Your task to perform on an android device: Search for seafood restaurants on Google Maps Image 0: 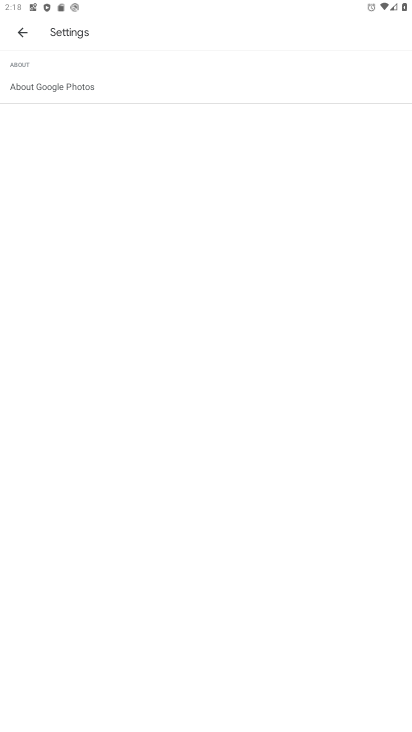
Step 0: press home button
Your task to perform on an android device: Search for seafood restaurants on Google Maps Image 1: 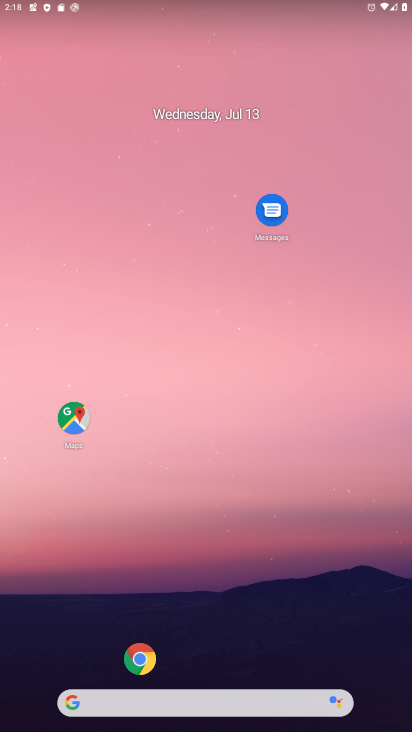
Step 1: click (79, 430)
Your task to perform on an android device: Search for seafood restaurants on Google Maps Image 2: 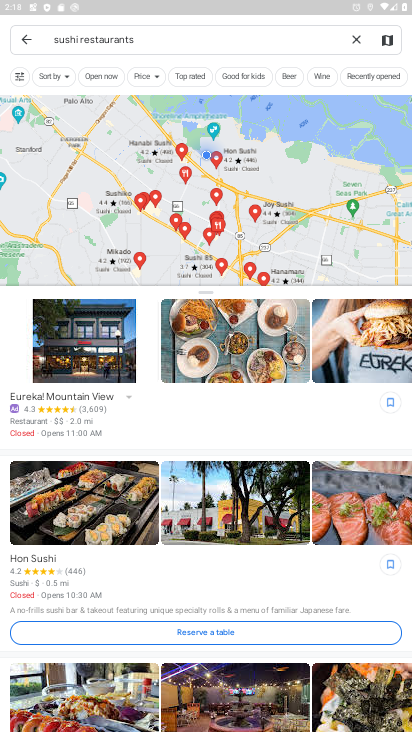
Step 2: click (27, 41)
Your task to perform on an android device: Search for seafood restaurants on Google Maps Image 3: 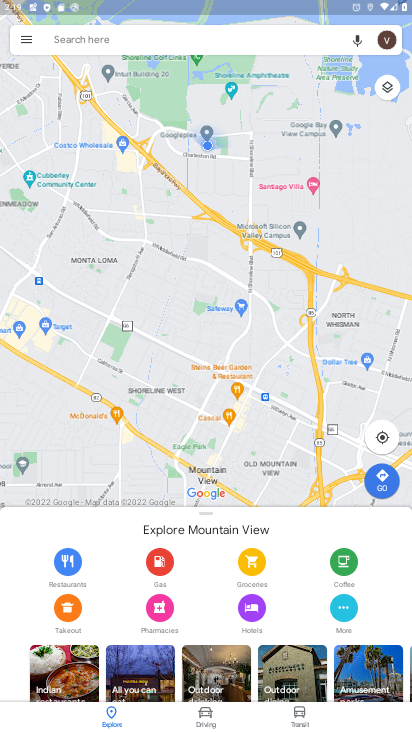
Step 3: click (83, 36)
Your task to perform on an android device: Search for seafood restaurants on Google Maps Image 4: 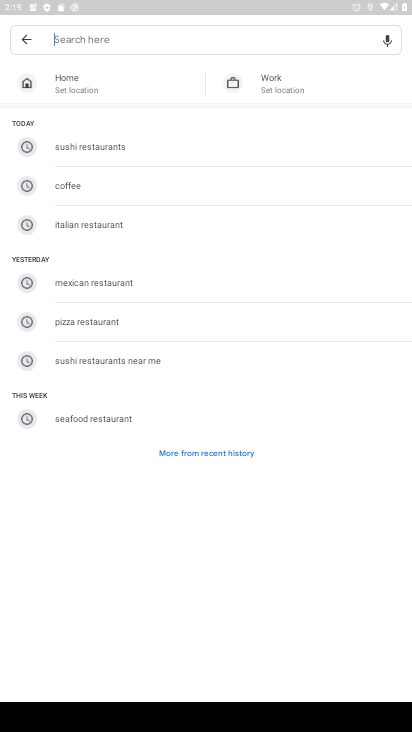
Step 4: type "seafood restaurants"
Your task to perform on an android device: Search for seafood restaurants on Google Maps Image 5: 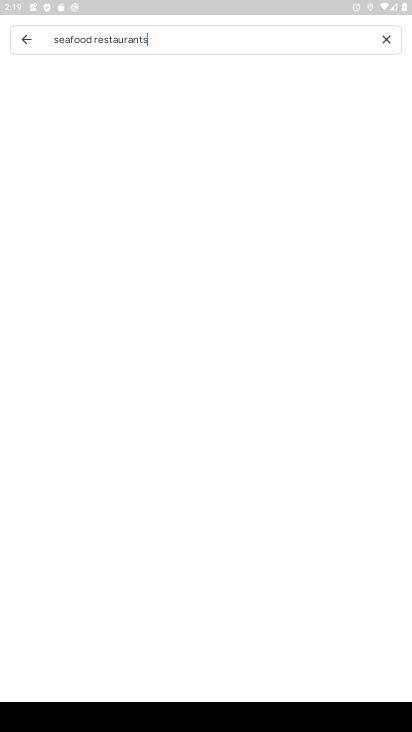
Step 5: type ""
Your task to perform on an android device: Search for seafood restaurants on Google Maps Image 6: 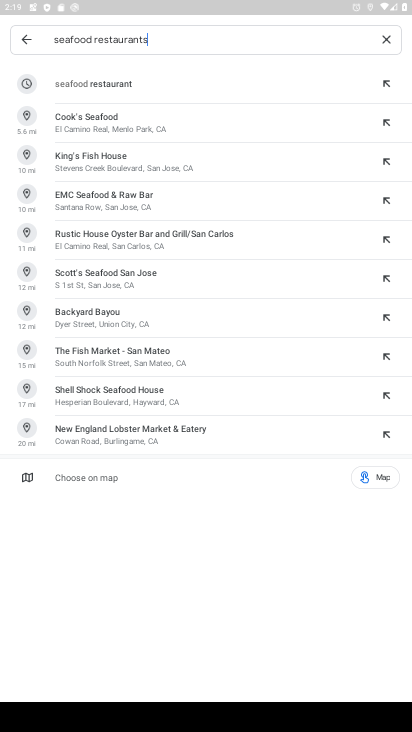
Step 6: click (113, 86)
Your task to perform on an android device: Search for seafood restaurants on Google Maps Image 7: 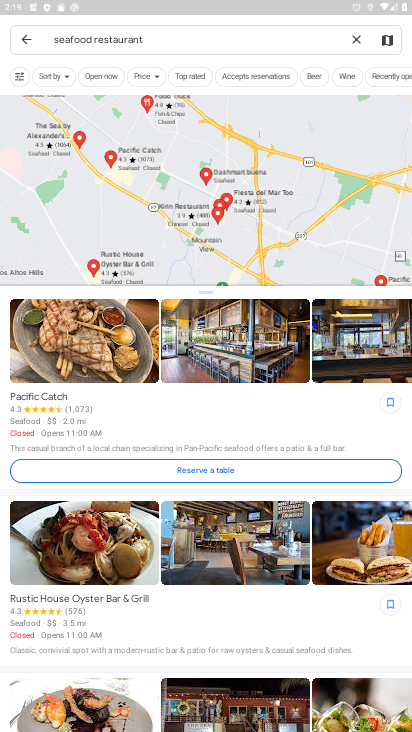
Step 7: task complete